Your task to perform on an android device: check the backup settings in the google photos Image 0: 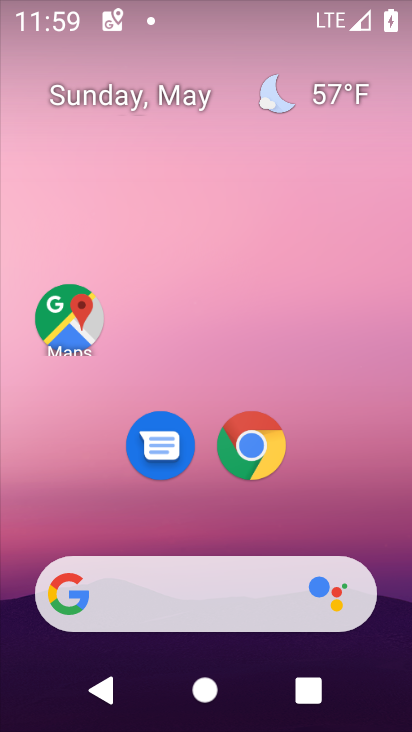
Step 0: drag from (338, 501) to (287, 352)
Your task to perform on an android device: check the backup settings in the google photos Image 1: 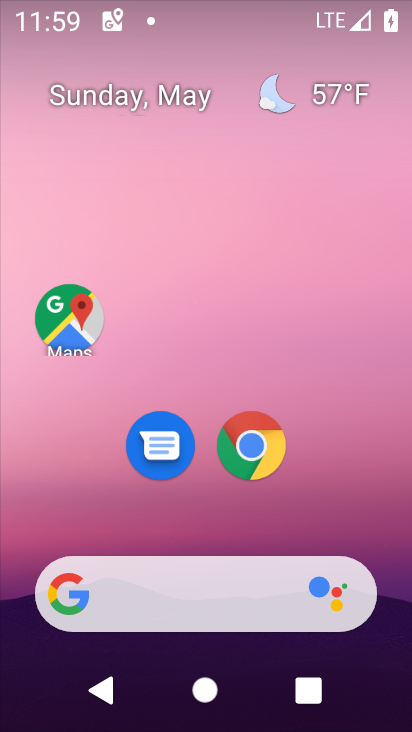
Step 1: drag from (345, 323) to (309, 90)
Your task to perform on an android device: check the backup settings in the google photos Image 2: 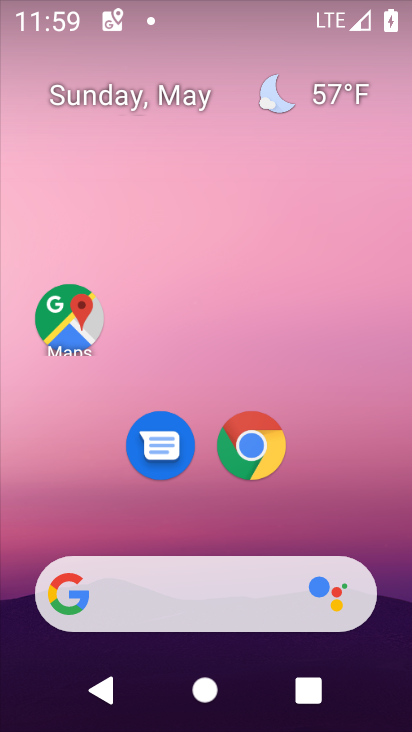
Step 2: drag from (303, 505) to (301, 115)
Your task to perform on an android device: check the backup settings in the google photos Image 3: 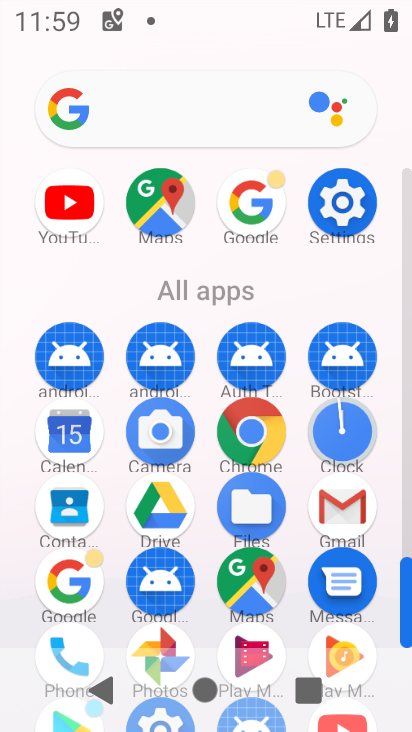
Step 3: drag from (206, 534) to (183, 204)
Your task to perform on an android device: check the backup settings in the google photos Image 4: 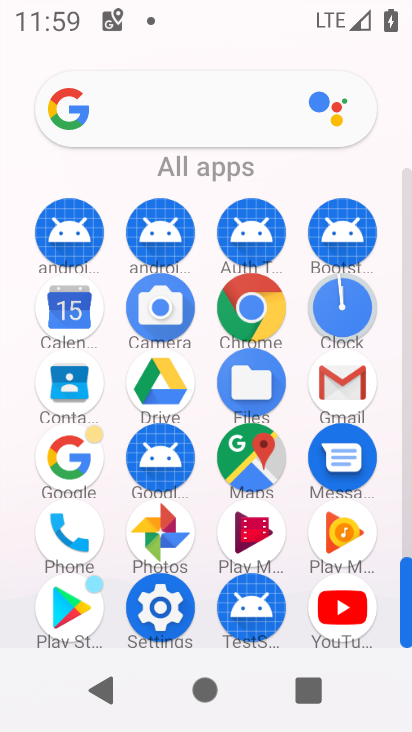
Step 4: click (156, 526)
Your task to perform on an android device: check the backup settings in the google photos Image 5: 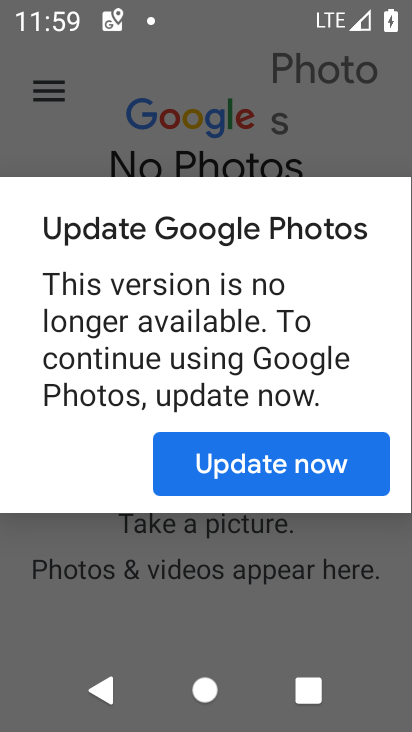
Step 5: click (244, 466)
Your task to perform on an android device: check the backup settings in the google photos Image 6: 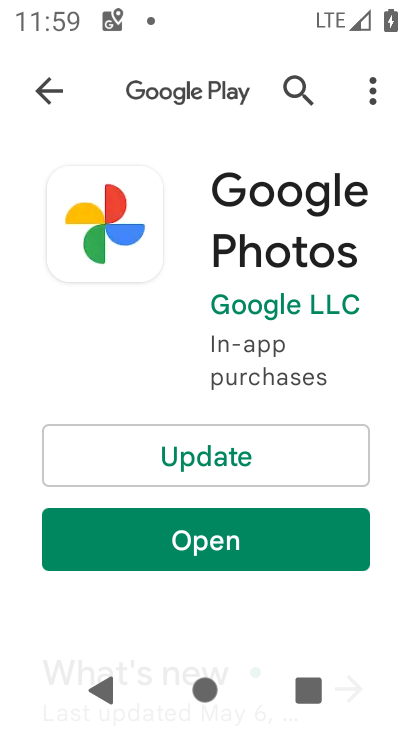
Step 6: click (244, 465)
Your task to perform on an android device: check the backup settings in the google photos Image 7: 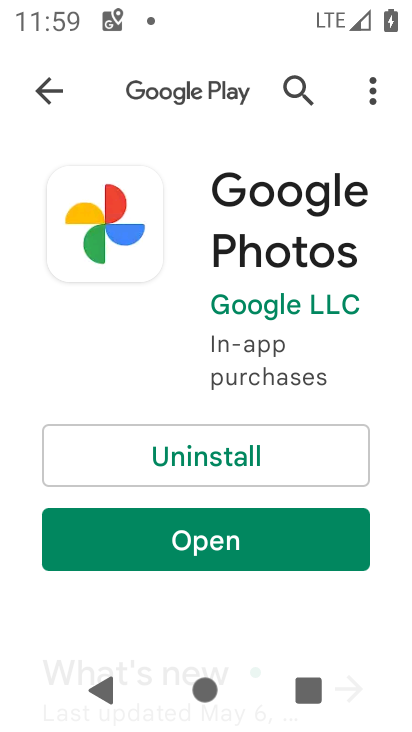
Step 7: click (243, 537)
Your task to perform on an android device: check the backup settings in the google photos Image 8: 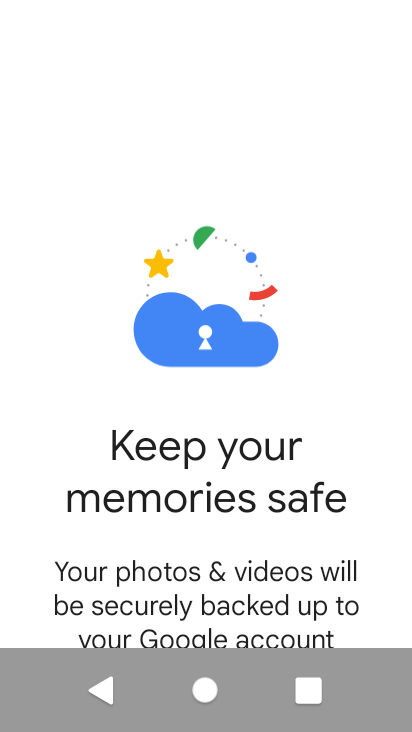
Step 8: drag from (258, 562) to (283, 341)
Your task to perform on an android device: check the backup settings in the google photos Image 9: 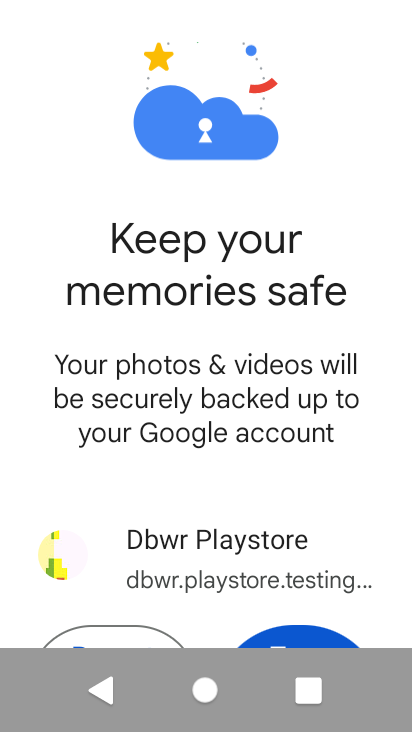
Step 9: drag from (256, 514) to (249, 109)
Your task to perform on an android device: check the backup settings in the google photos Image 10: 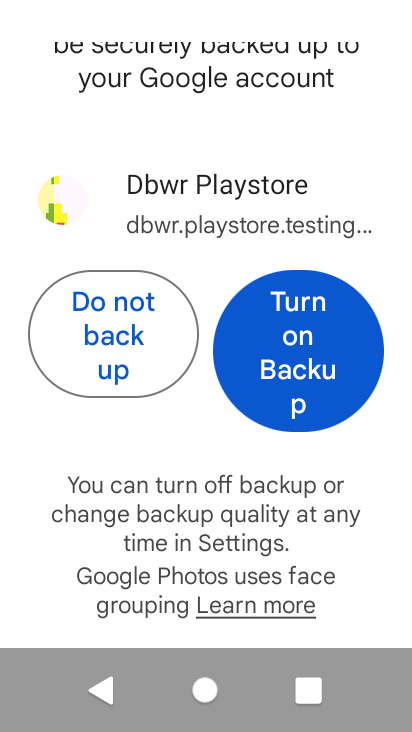
Step 10: drag from (262, 479) to (278, 254)
Your task to perform on an android device: check the backup settings in the google photos Image 11: 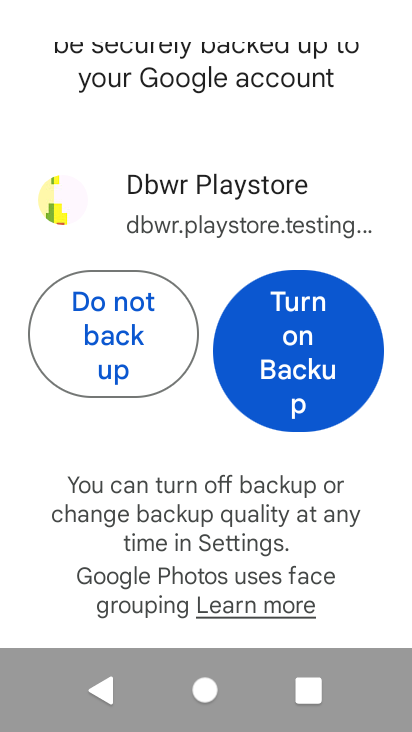
Step 11: drag from (190, 304) to (193, 205)
Your task to perform on an android device: check the backup settings in the google photos Image 12: 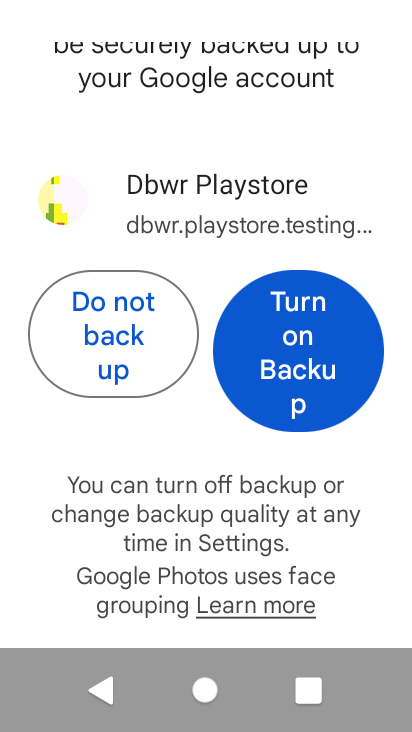
Step 12: drag from (205, 375) to (211, 476)
Your task to perform on an android device: check the backup settings in the google photos Image 13: 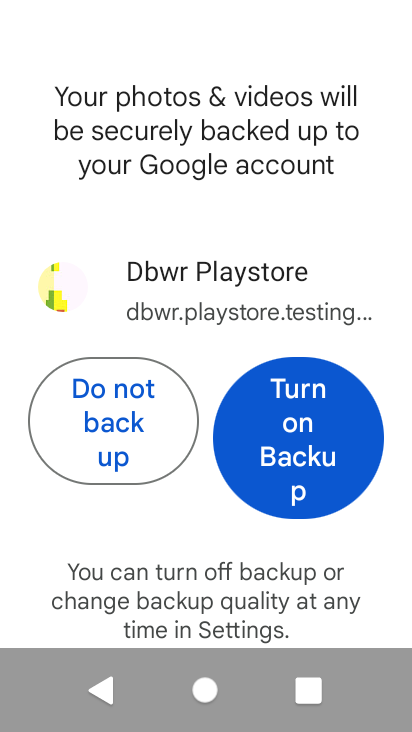
Step 13: press home button
Your task to perform on an android device: check the backup settings in the google photos Image 14: 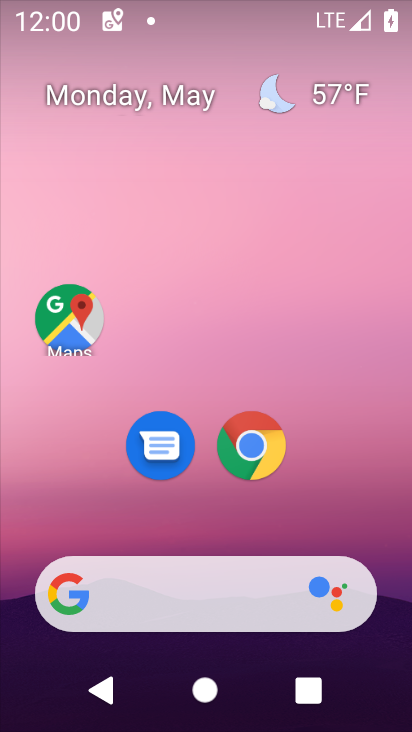
Step 14: click (252, 158)
Your task to perform on an android device: check the backup settings in the google photos Image 15: 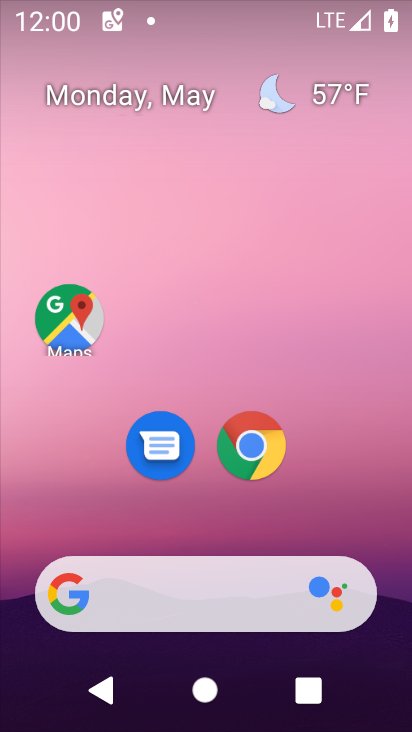
Step 15: drag from (322, 504) to (368, 62)
Your task to perform on an android device: check the backup settings in the google photos Image 16: 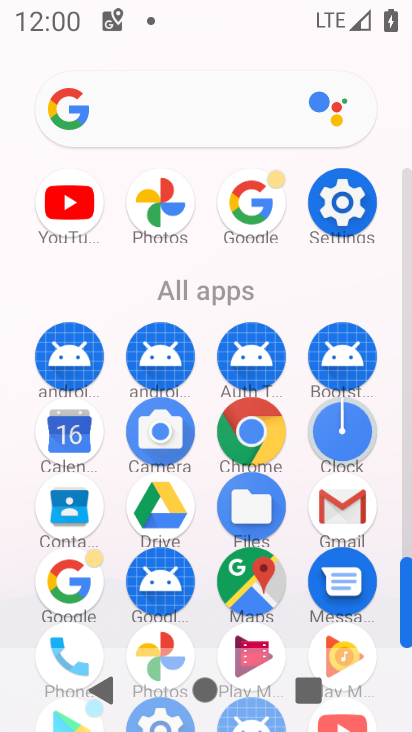
Step 16: click (156, 217)
Your task to perform on an android device: check the backup settings in the google photos Image 17: 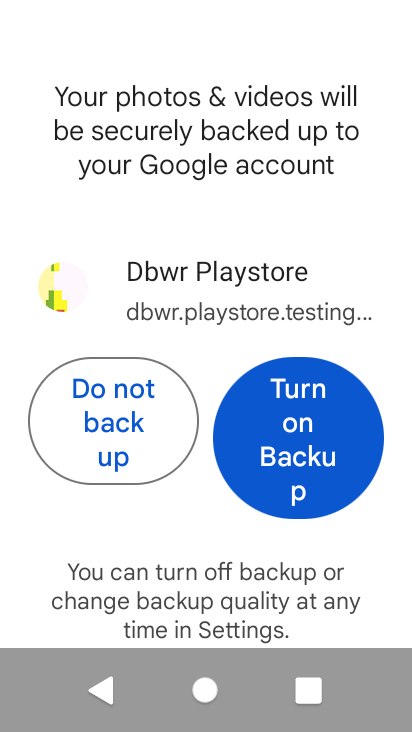
Step 17: drag from (197, 529) to (225, 265)
Your task to perform on an android device: check the backup settings in the google photos Image 18: 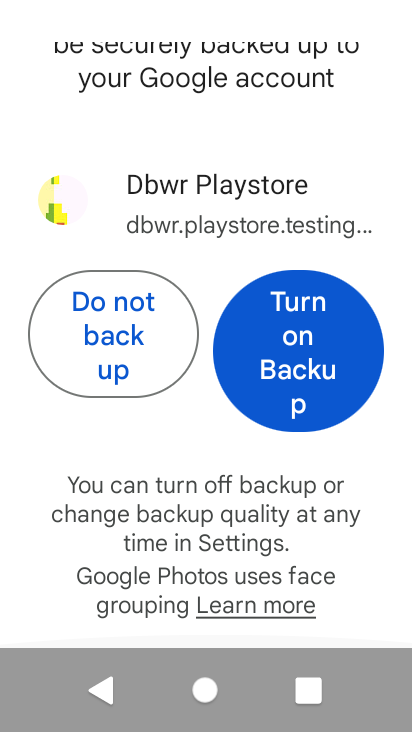
Step 18: click (192, 553)
Your task to perform on an android device: check the backup settings in the google photos Image 19: 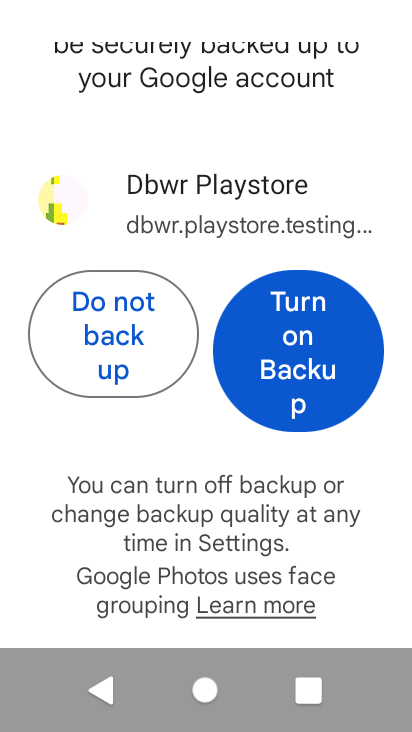
Step 19: drag from (189, 337) to (186, 593)
Your task to perform on an android device: check the backup settings in the google photos Image 20: 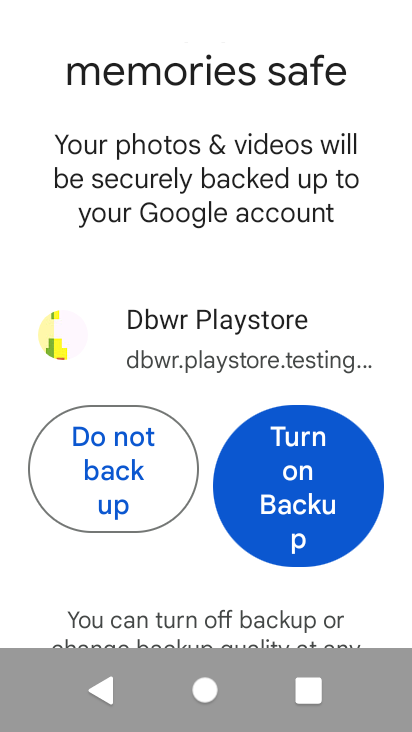
Step 20: drag from (158, 575) to (215, 223)
Your task to perform on an android device: check the backup settings in the google photos Image 21: 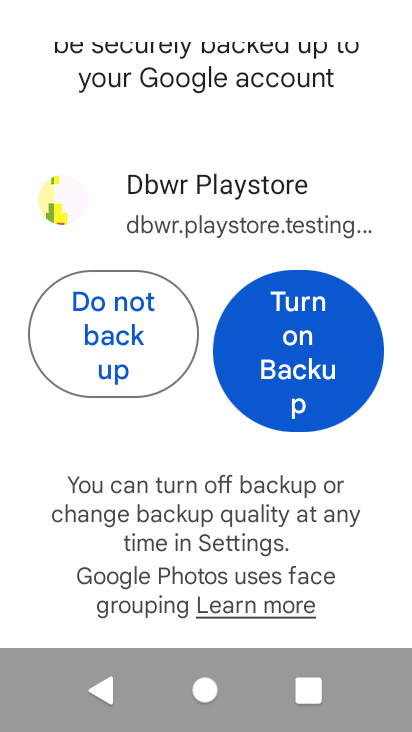
Step 21: drag from (186, 503) to (202, 203)
Your task to perform on an android device: check the backup settings in the google photos Image 22: 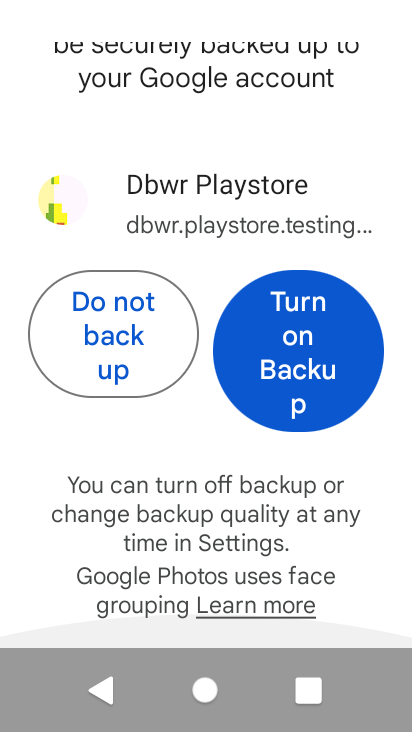
Step 22: click (187, 101)
Your task to perform on an android device: check the backup settings in the google photos Image 23: 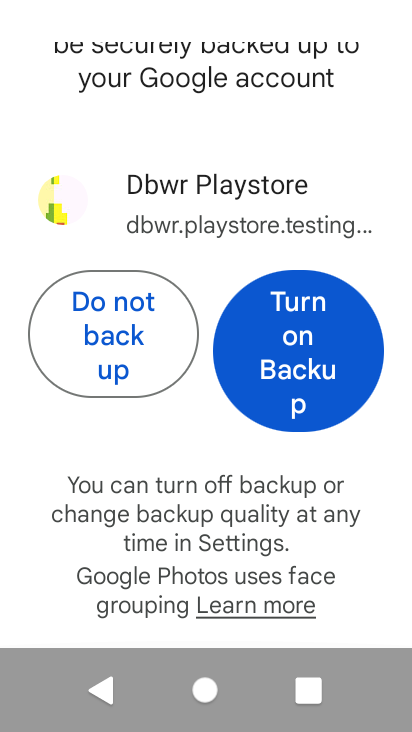
Step 23: task complete